Your task to perform on an android device: Open the map Image 0: 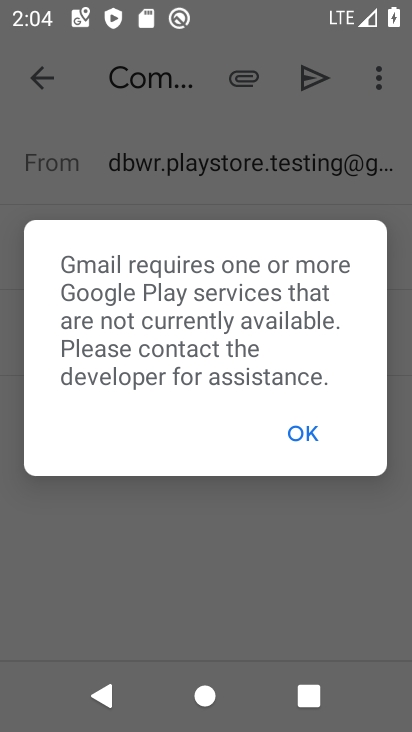
Step 0: press home button
Your task to perform on an android device: Open the map Image 1: 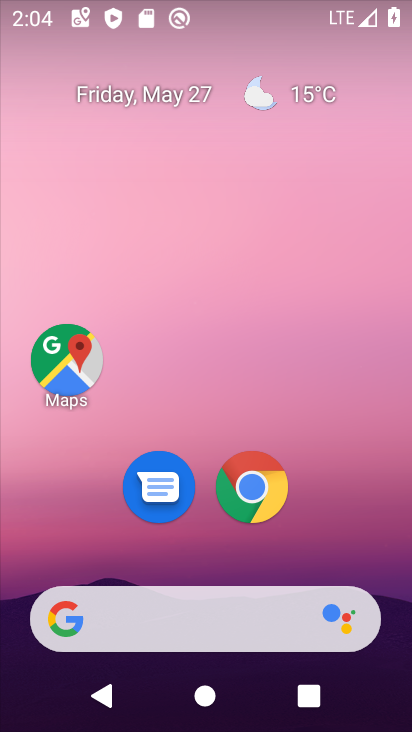
Step 1: click (76, 356)
Your task to perform on an android device: Open the map Image 2: 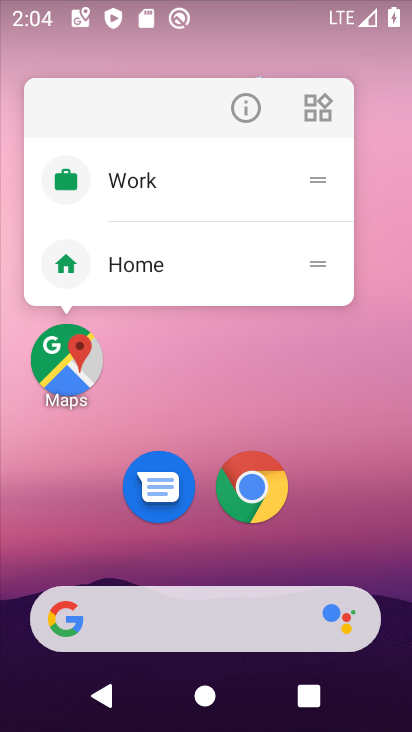
Step 2: click (78, 361)
Your task to perform on an android device: Open the map Image 3: 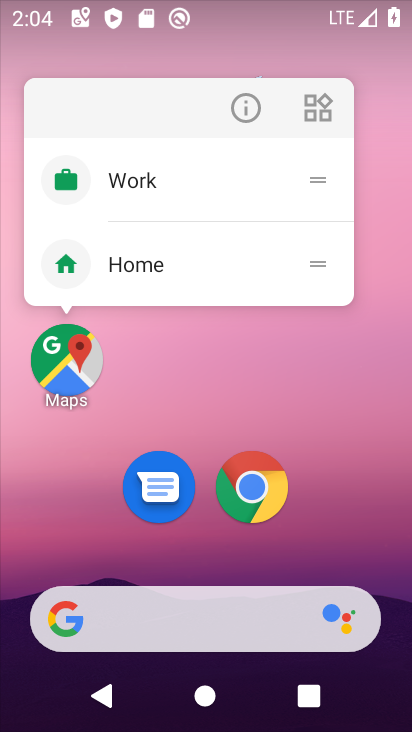
Step 3: click (250, 380)
Your task to perform on an android device: Open the map Image 4: 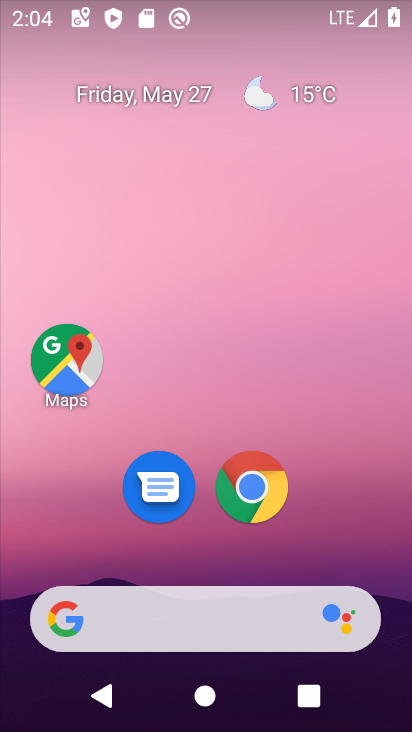
Step 4: drag from (371, 524) to (378, 177)
Your task to perform on an android device: Open the map Image 5: 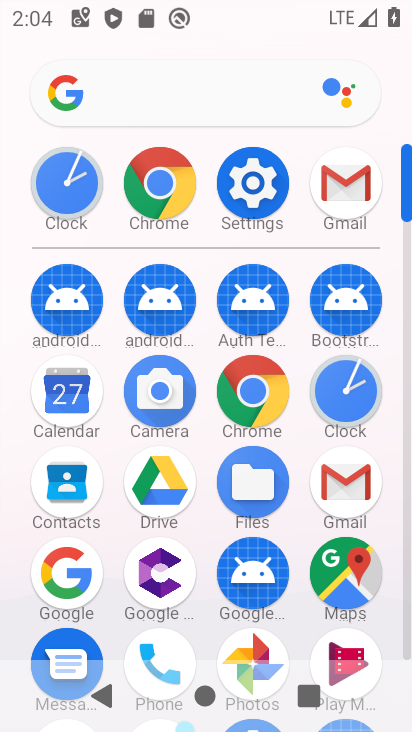
Step 5: click (345, 576)
Your task to perform on an android device: Open the map Image 6: 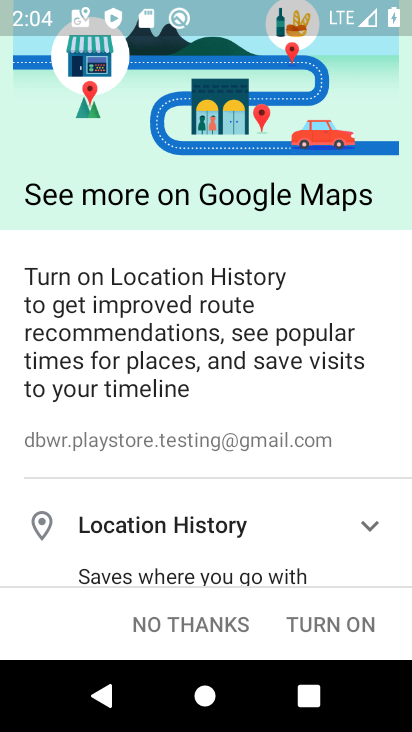
Step 6: click (214, 630)
Your task to perform on an android device: Open the map Image 7: 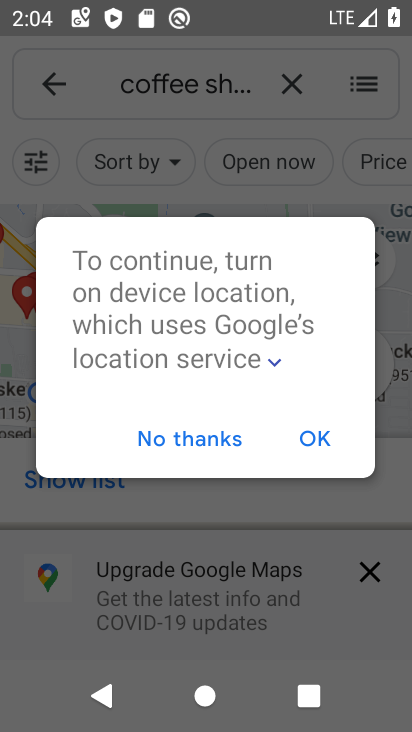
Step 7: click (296, 420)
Your task to perform on an android device: Open the map Image 8: 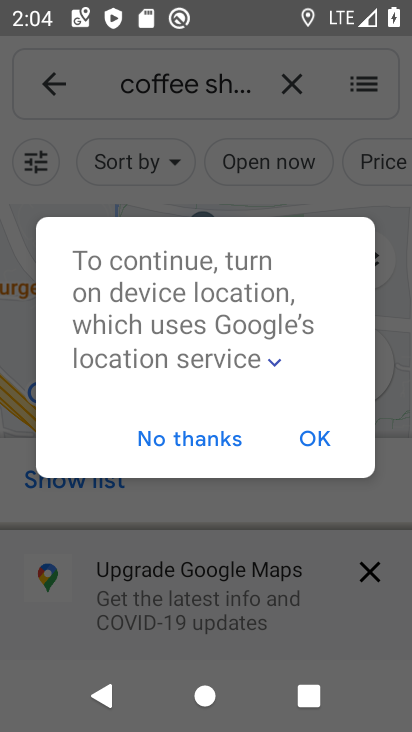
Step 8: click (313, 432)
Your task to perform on an android device: Open the map Image 9: 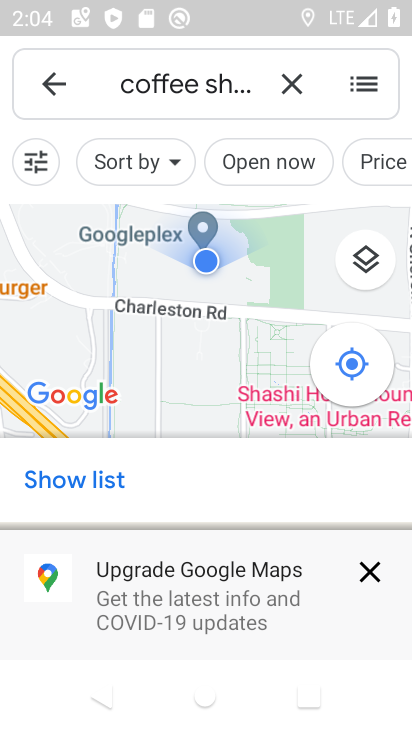
Step 9: click (220, 88)
Your task to perform on an android device: Open the map Image 10: 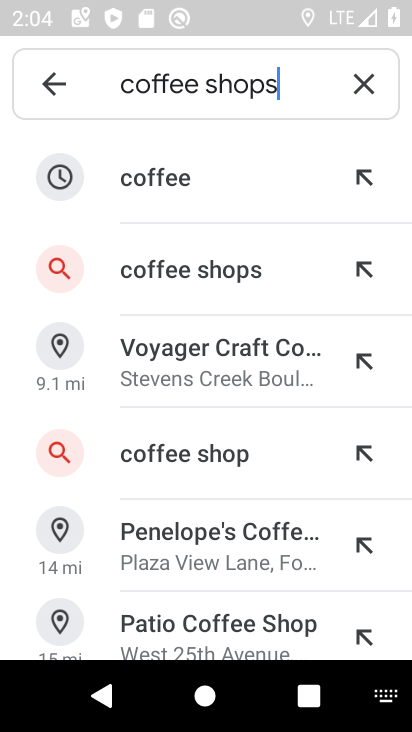
Step 10: click (375, 93)
Your task to perform on an android device: Open the map Image 11: 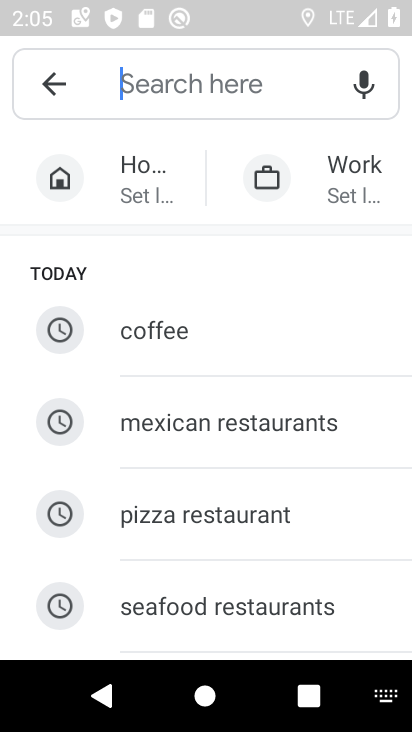
Step 11: type "map"
Your task to perform on an android device: Open the map Image 12: 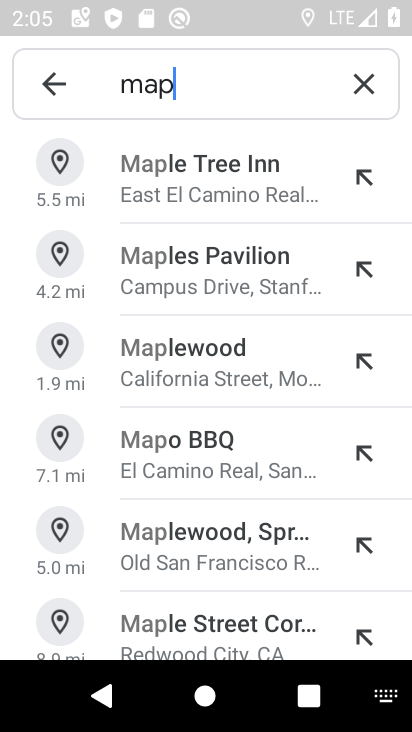
Step 12: click (49, 79)
Your task to perform on an android device: Open the map Image 13: 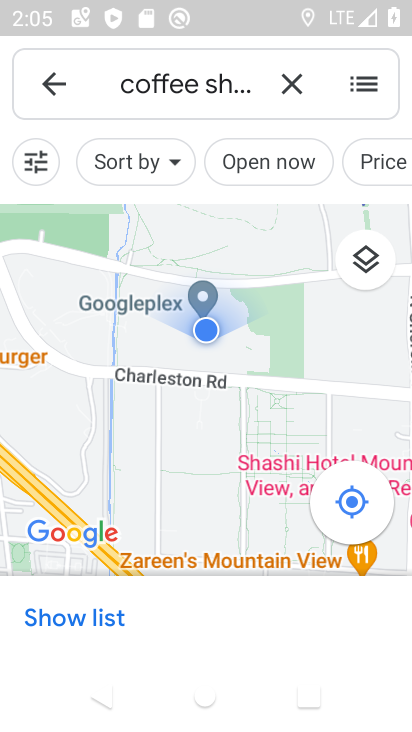
Step 13: click (48, 78)
Your task to perform on an android device: Open the map Image 14: 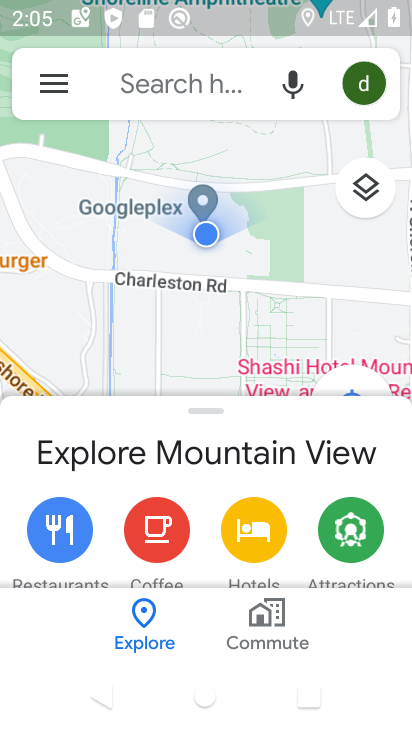
Step 14: task complete